Your task to perform on an android device: Open Maps and search for coffee Image 0: 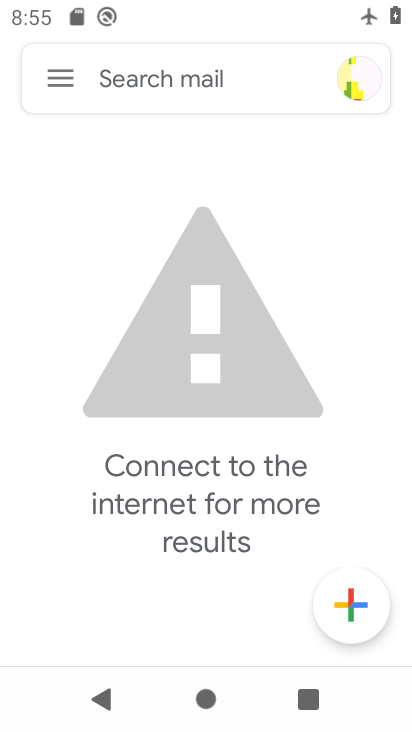
Step 0: press home button
Your task to perform on an android device: Open Maps and search for coffee Image 1: 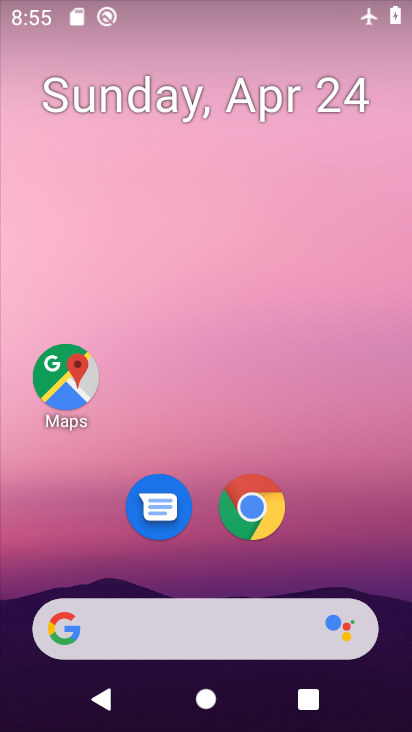
Step 1: drag from (341, 9) to (348, 488)
Your task to perform on an android device: Open Maps and search for coffee Image 2: 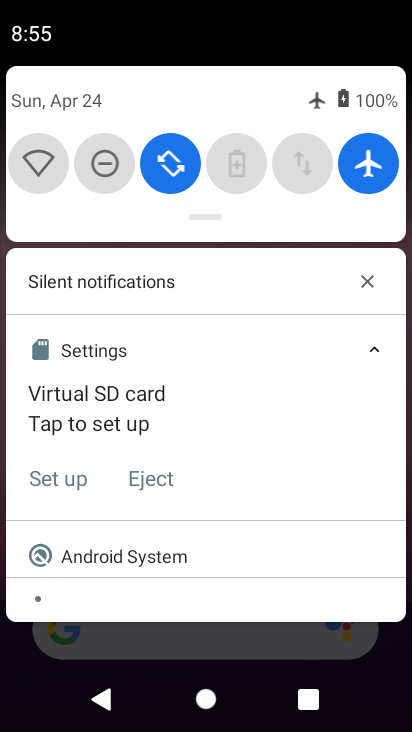
Step 2: click (372, 178)
Your task to perform on an android device: Open Maps and search for coffee Image 3: 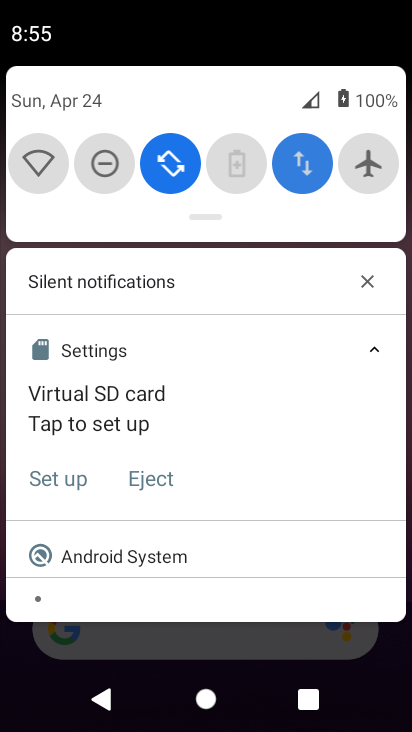
Step 3: drag from (260, 649) to (264, 108)
Your task to perform on an android device: Open Maps and search for coffee Image 4: 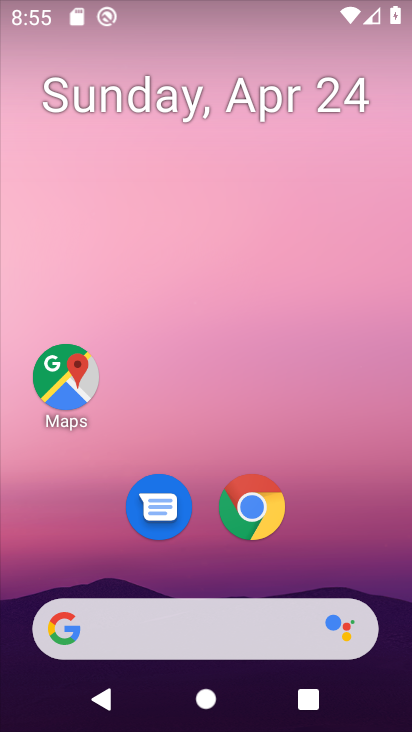
Step 4: click (77, 412)
Your task to perform on an android device: Open Maps and search for coffee Image 5: 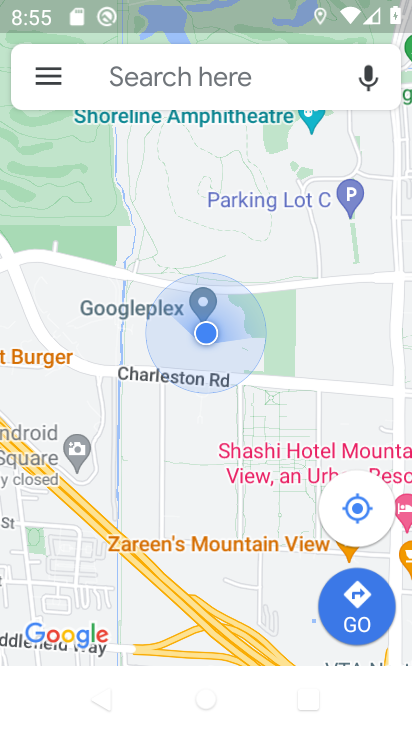
Step 5: click (205, 58)
Your task to perform on an android device: Open Maps and search for coffee Image 6: 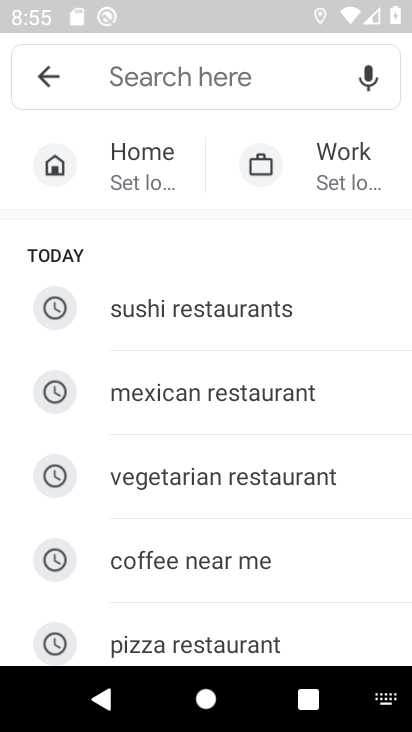
Step 6: type "coffee"
Your task to perform on an android device: Open Maps and search for coffee Image 7: 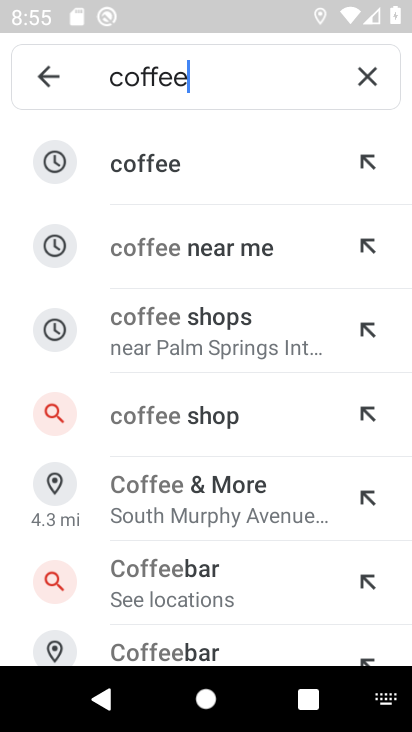
Step 7: click (193, 156)
Your task to perform on an android device: Open Maps and search for coffee Image 8: 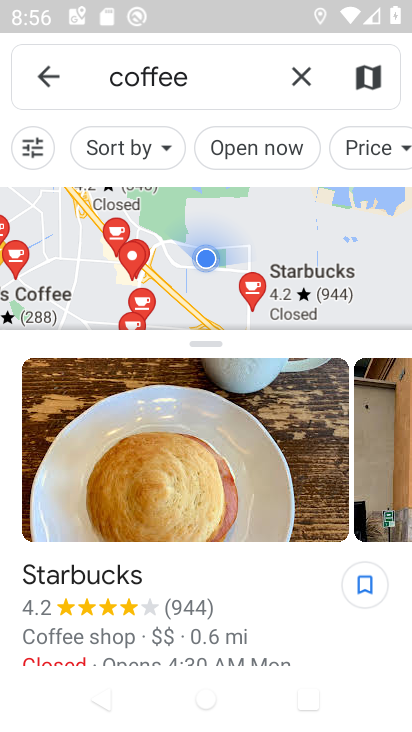
Step 8: task complete